Your task to perform on an android device: Go to Reddit.com Image 0: 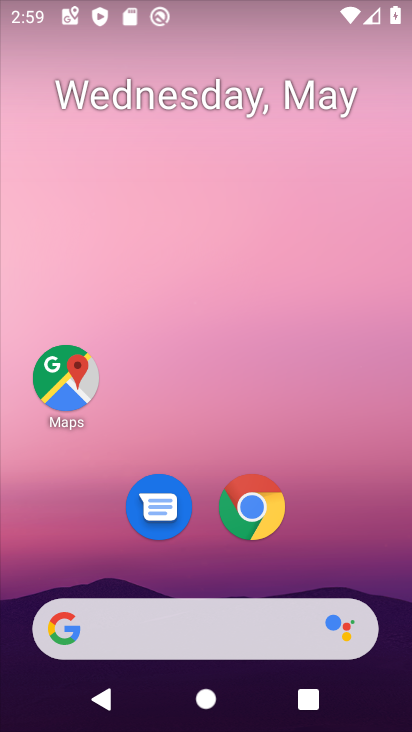
Step 0: drag from (228, 540) to (285, 46)
Your task to perform on an android device: Go to Reddit.com Image 1: 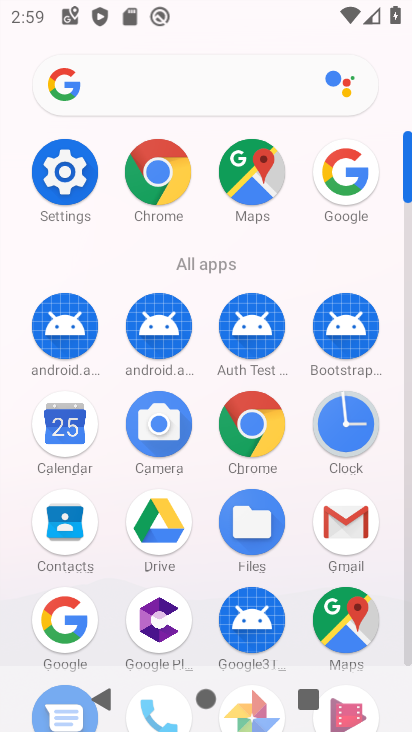
Step 1: click (349, 166)
Your task to perform on an android device: Go to Reddit.com Image 2: 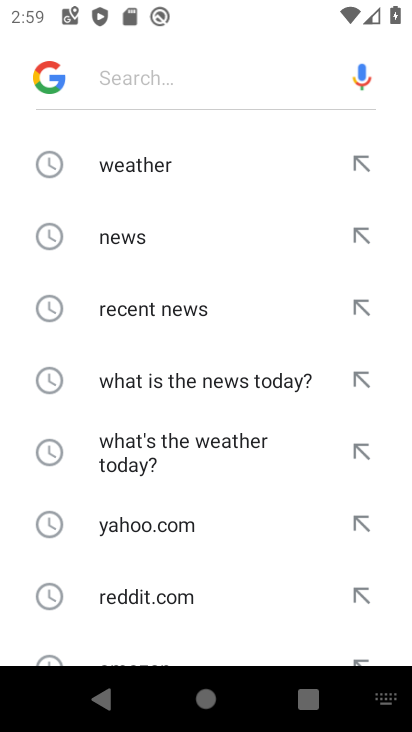
Step 2: type "reddit.com"
Your task to perform on an android device: Go to Reddit.com Image 3: 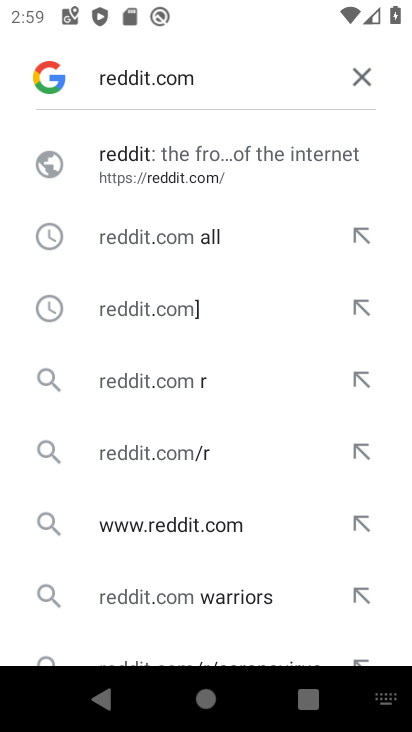
Step 3: click (190, 172)
Your task to perform on an android device: Go to Reddit.com Image 4: 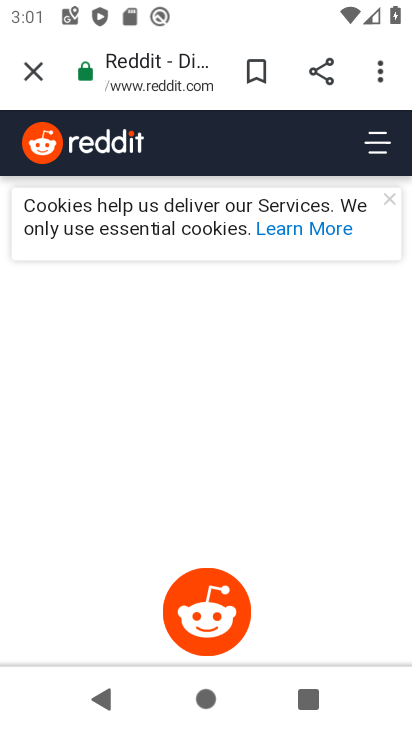
Step 4: task complete